Your task to perform on an android device: change your default location settings in chrome Image 0: 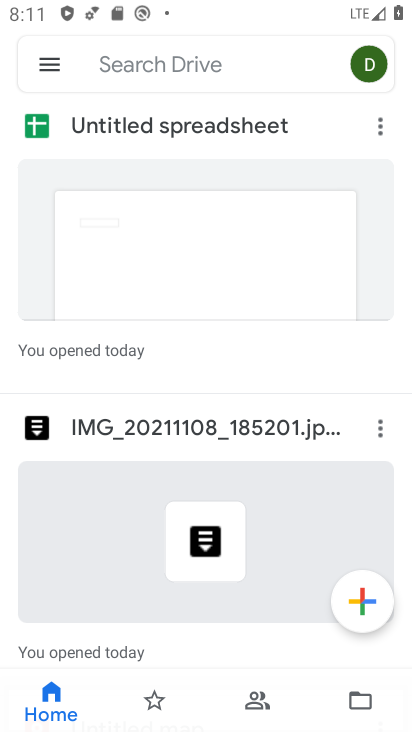
Step 0: press home button
Your task to perform on an android device: change your default location settings in chrome Image 1: 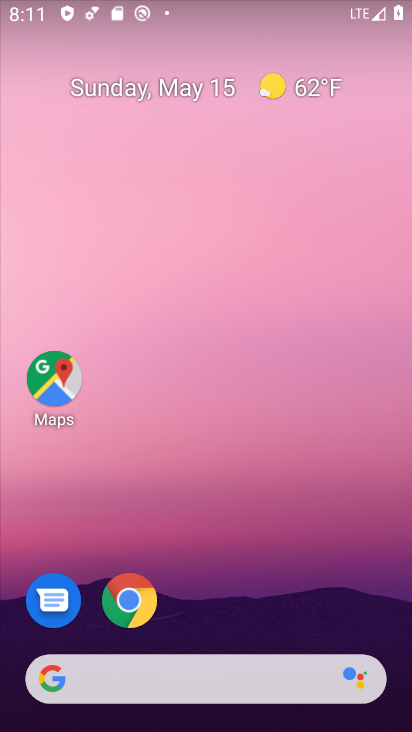
Step 1: drag from (223, 617) to (181, 230)
Your task to perform on an android device: change your default location settings in chrome Image 2: 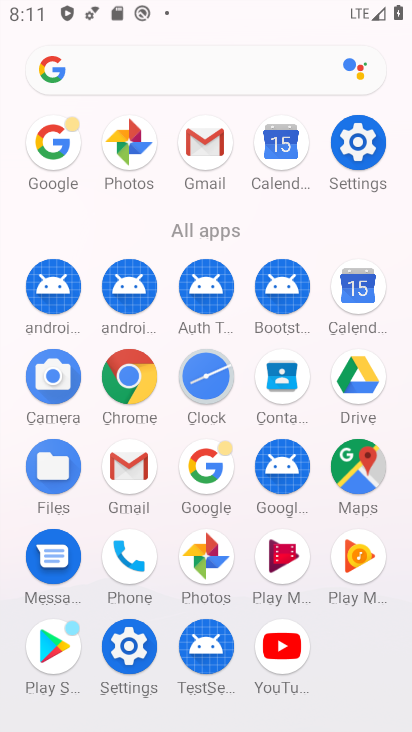
Step 2: click (129, 389)
Your task to perform on an android device: change your default location settings in chrome Image 3: 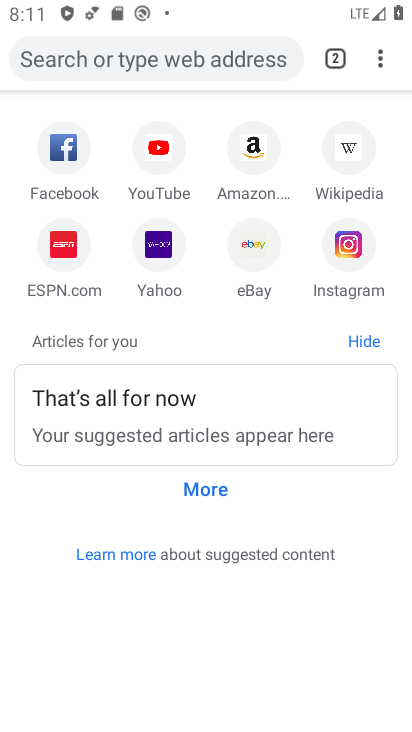
Step 3: click (381, 58)
Your task to perform on an android device: change your default location settings in chrome Image 4: 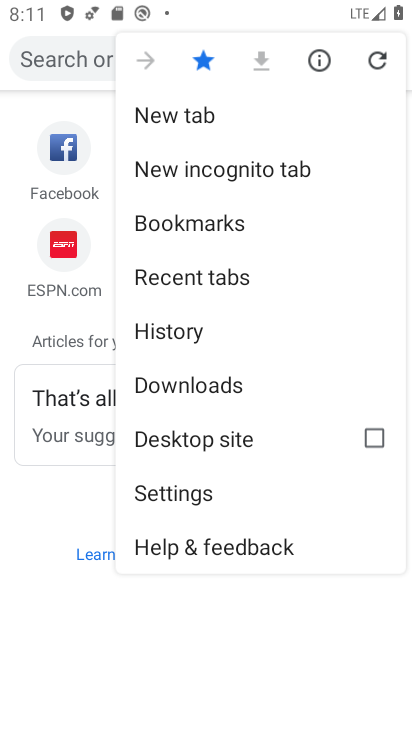
Step 4: click (181, 496)
Your task to perform on an android device: change your default location settings in chrome Image 5: 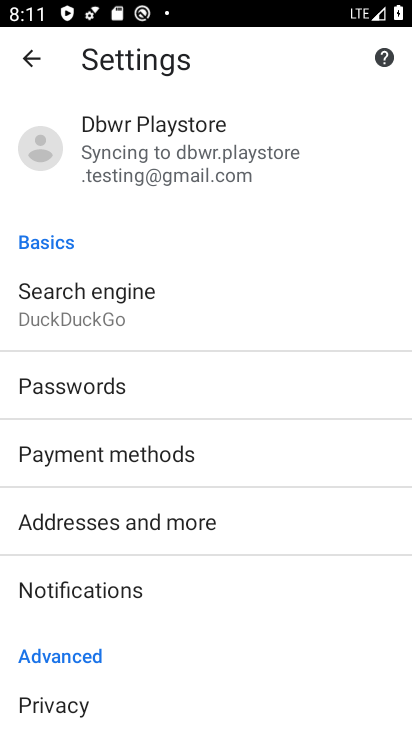
Step 5: drag from (149, 662) to (138, 144)
Your task to perform on an android device: change your default location settings in chrome Image 6: 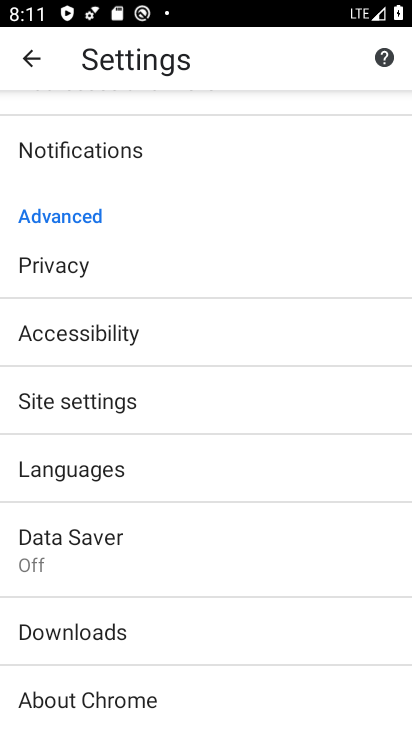
Step 6: click (93, 400)
Your task to perform on an android device: change your default location settings in chrome Image 7: 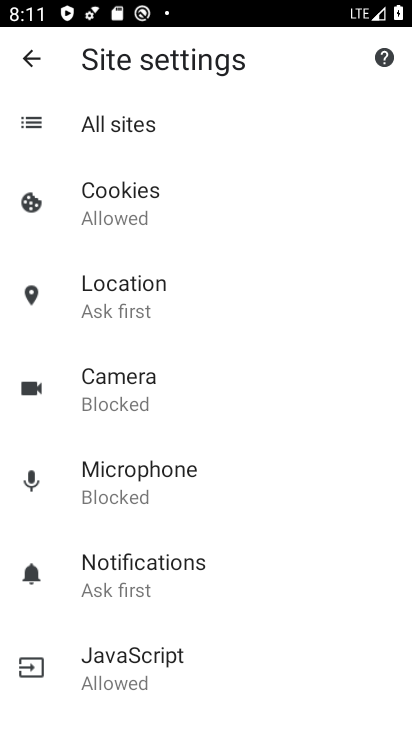
Step 7: click (129, 310)
Your task to perform on an android device: change your default location settings in chrome Image 8: 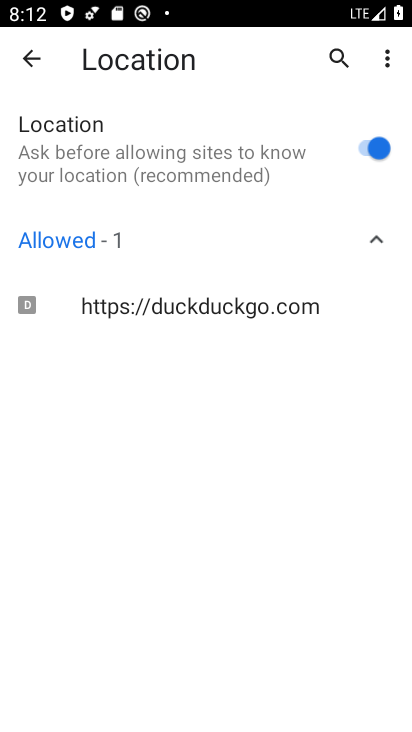
Step 8: click (378, 146)
Your task to perform on an android device: change your default location settings in chrome Image 9: 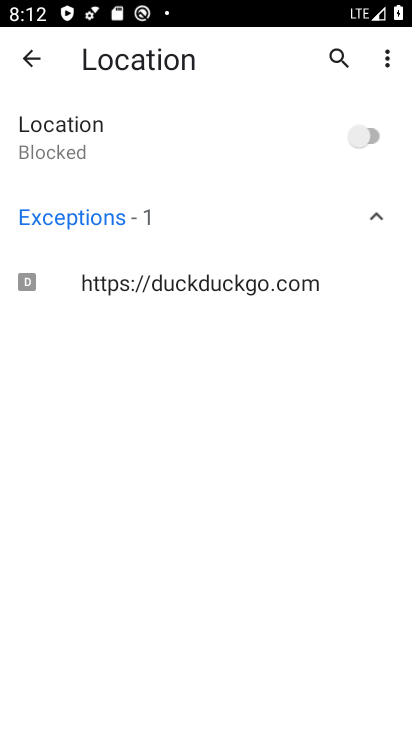
Step 9: task complete